Your task to perform on an android device: turn on showing notifications on the lock screen Image 0: 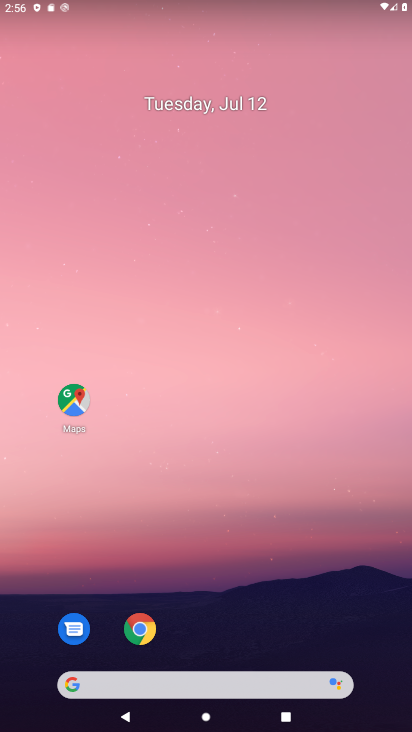
Step 0: drag from (295, 610) to (298, 56)
Your task to perform on an android device: turn on showing notifications on the lock screen Image 1: 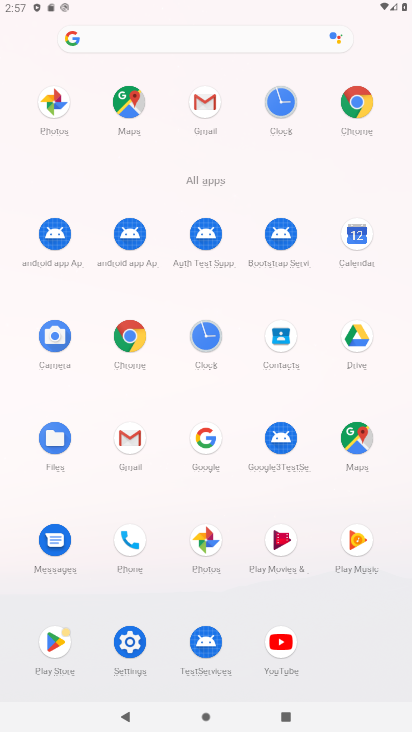
Step 1: click (115, 634)
Your task to perform on an android device: turn on showing notifications on the lock screen Image 2: 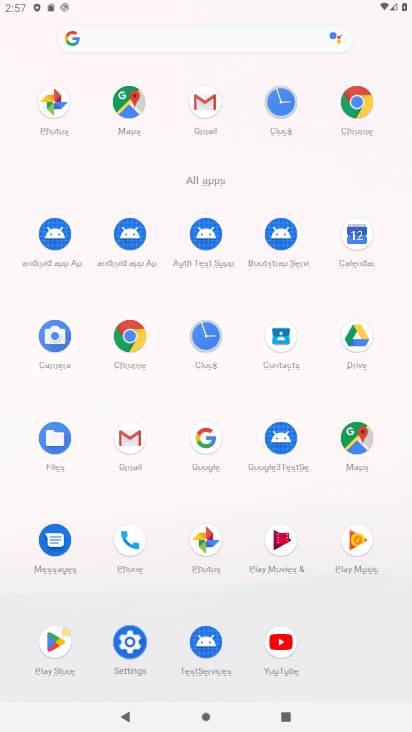
Step 2: click (115, 634)
Your task to perform on an android device: turn on showing notifications on the lock screen Image 3: 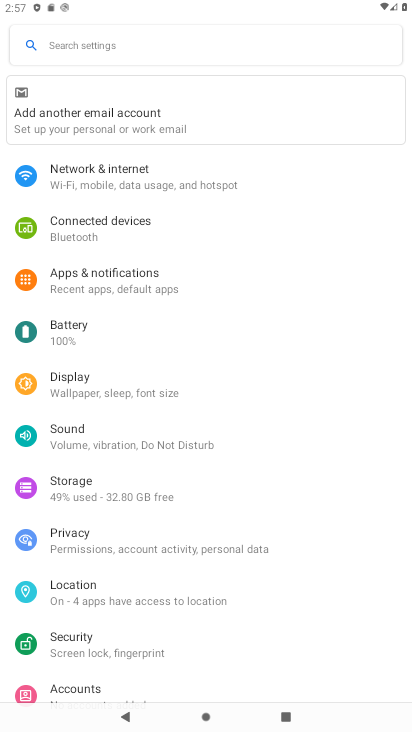
Step 3: click (99, 281)
Your task to perform on an android device: turn on showing notifications on the lock screen Image 4: 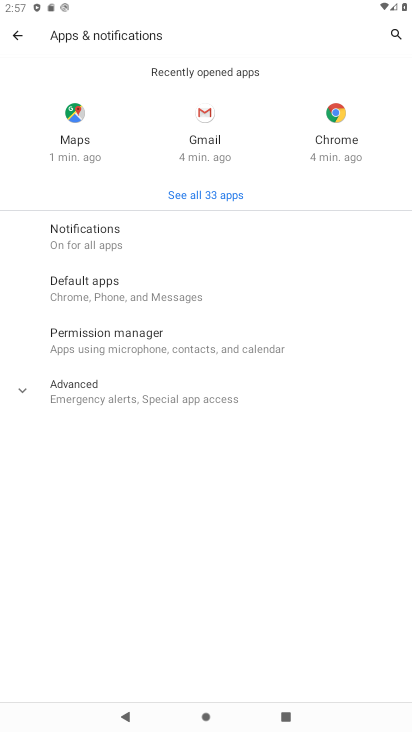
Step 4: click (88, 234)
Your task to perform on an android device: turn on showing notifications on the lock screen Image 5: 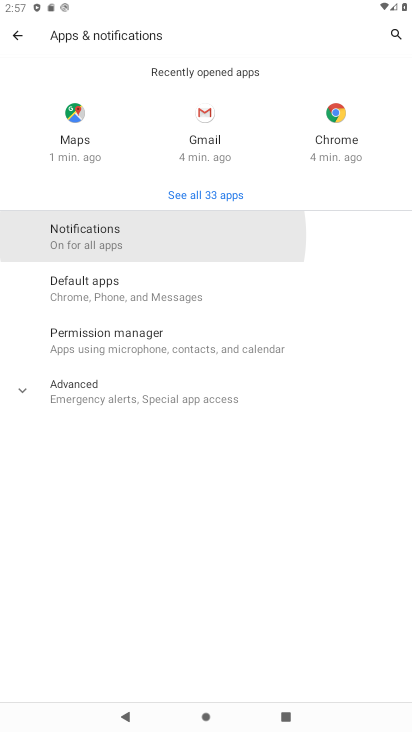
Step 5: click (88, 234)
Your task to perform on an android device: turn on showing notifications on the lock screen Image 6: 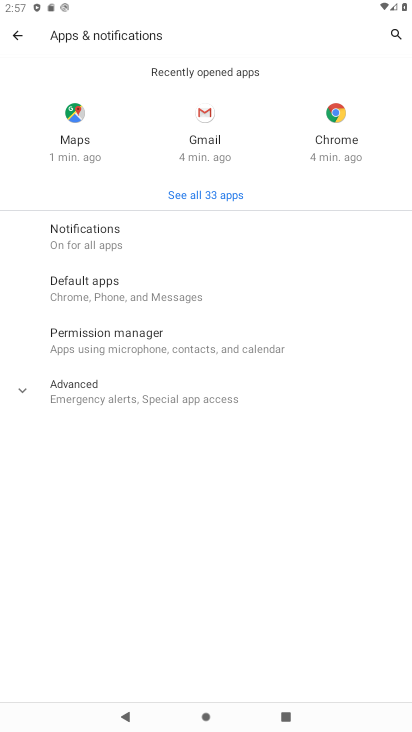
Step 6: click (88, 234)
Your task to perform on an android device: turn on showing notifications on the lock screen Image 7: 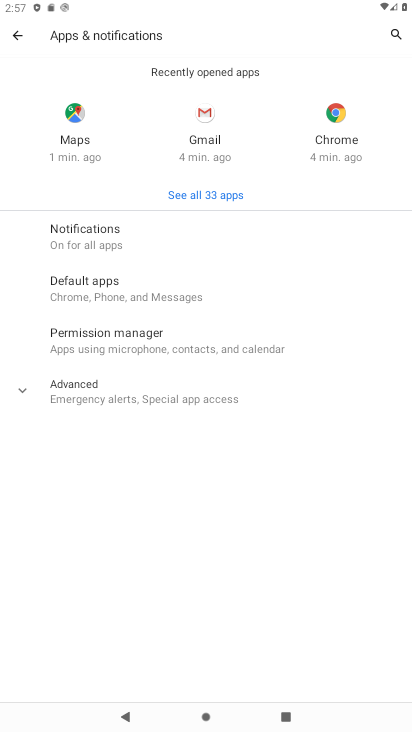
Step 7: click (88, 234)
Your task to perform on an android device: turn on showing notifications on the lock screen Image 8: 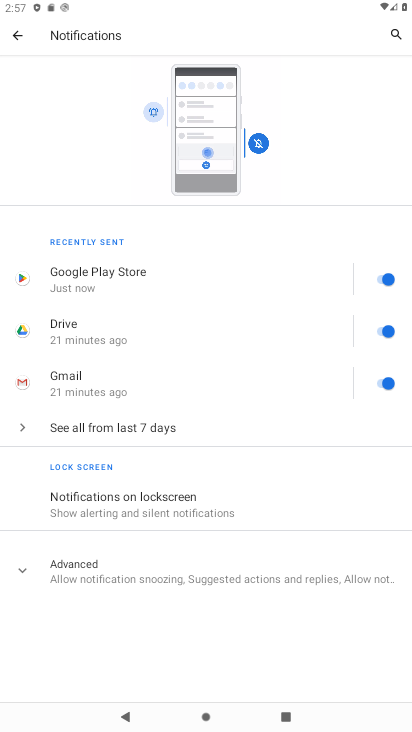
Step 8: click (98, 494)
Your task to perform on an android device: turn on showing notifications on the lock screen Image 9: 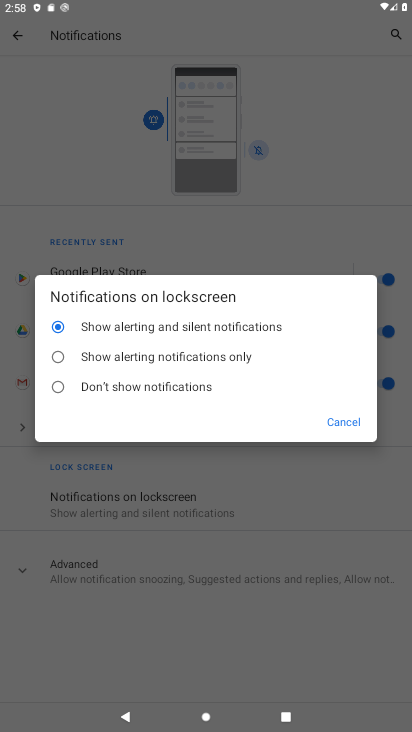
Step 9: click (344, 407)
Your task to perform on an android device: turn on showing notifications on the lock screen Image 10: 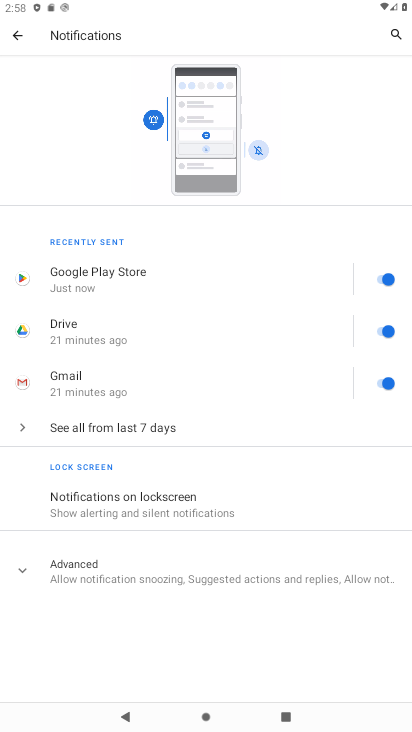
Step 10: task complete